Your task to perform on an android device: Go to internet settings Image 0: 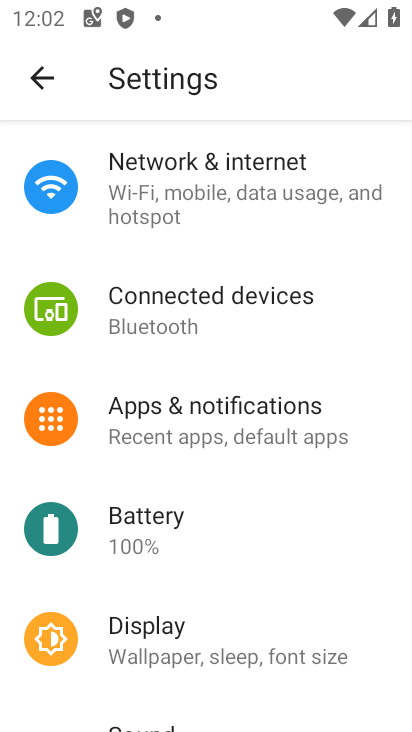
Step 0: click (214, 207)
Your task to perform on an android device: Go to internet settings Image 1: 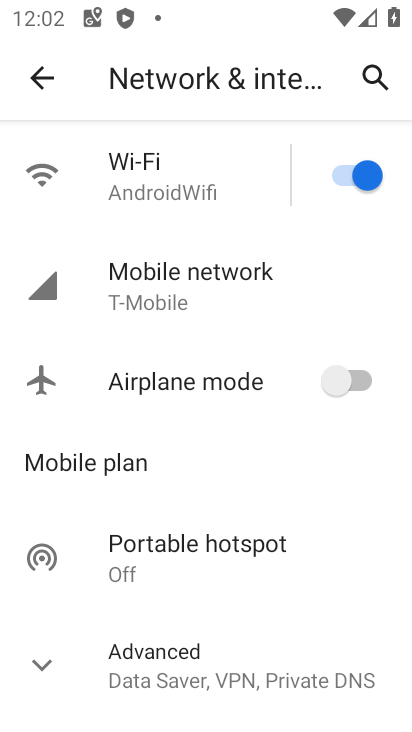
Step 1: task complete